Your task to perform on an android device: turn off improve location accuracy Image 0: 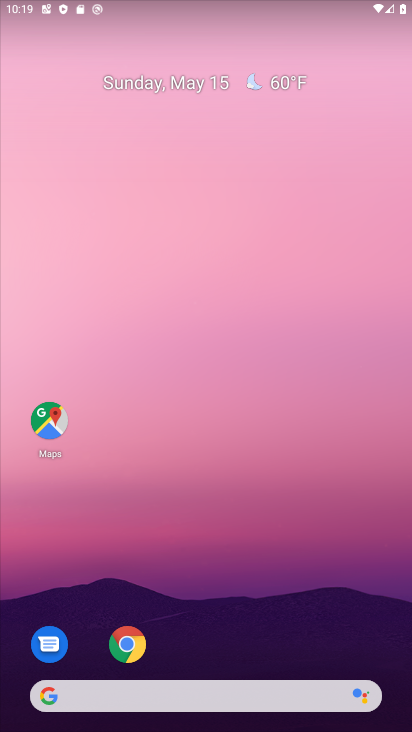
Step 0: drag from (179, 670) to (209, 184)
Your task to perform on an android device: turn off improve location accuracy Image 1: 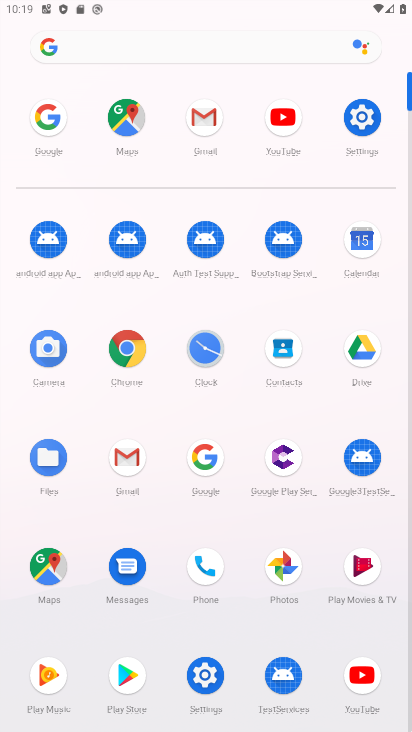
Step 1: click (363, 117)
Your task to perform on an android device: turn off improve location accuracy Image 2: 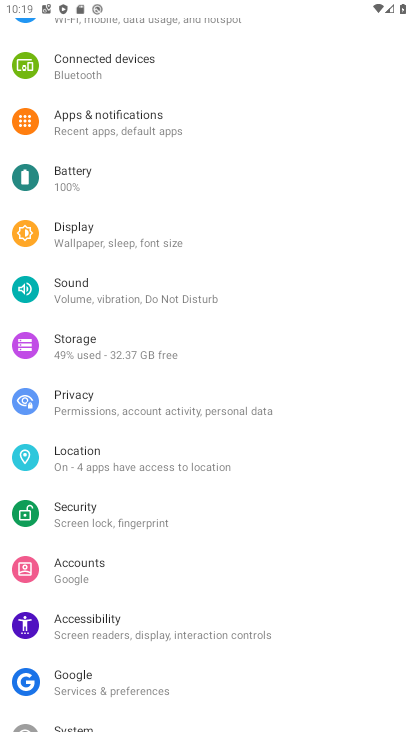
Step 2: click (84, 450)
Your task to perform on an android device: turn off improve location accuracy Image 3: 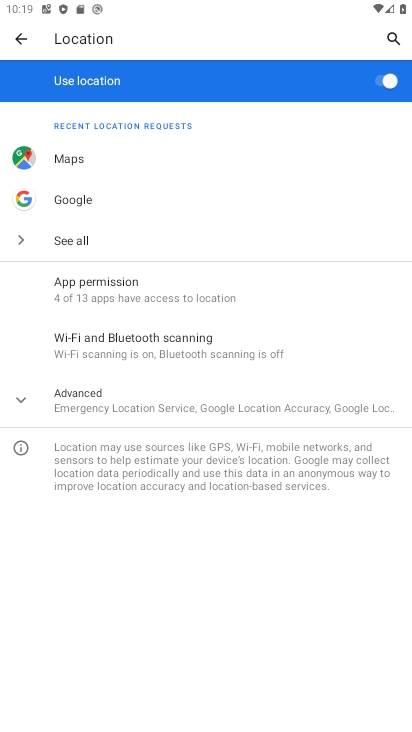
Step 3: click (82, 403)
Your task to perform on an android device: turn off improve location accuracy Image 4: 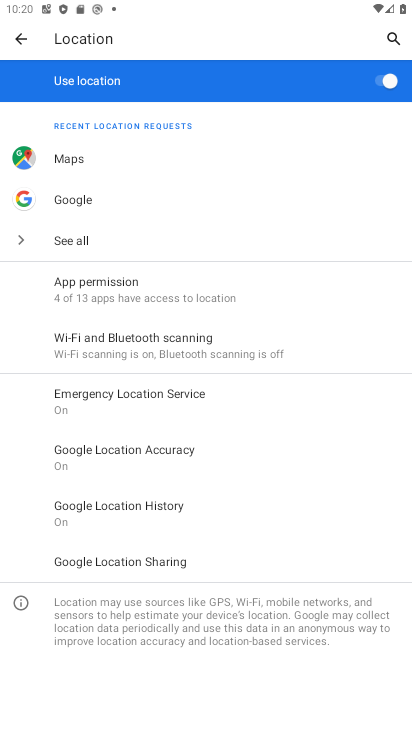
Step 4: click (144, 455)
Your task to perform on an android device: turn off improve location accuracy Image 5: 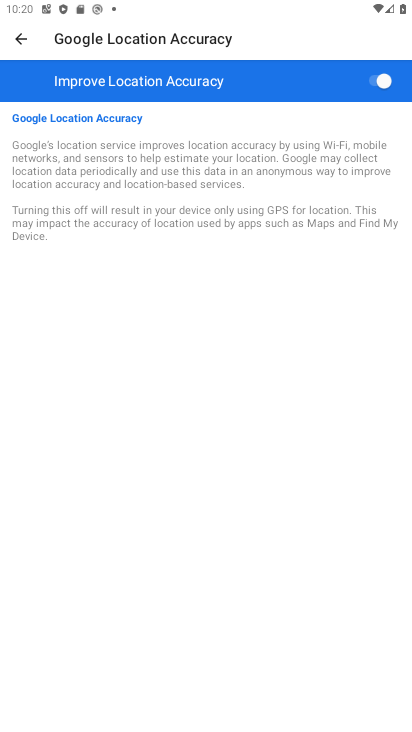
Step 5: click (381, 87)
Your task to perform on an android device: turn off improve location accuracy Image 6: 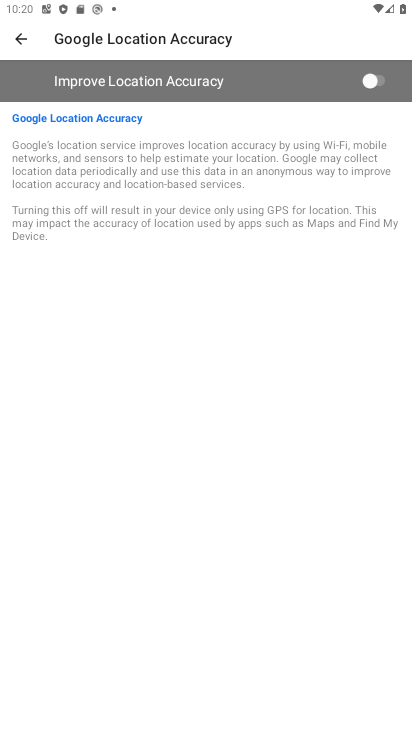
Step 6: task complete